Your task to perform on an android device: Open Chrome and go to settings Image 0: 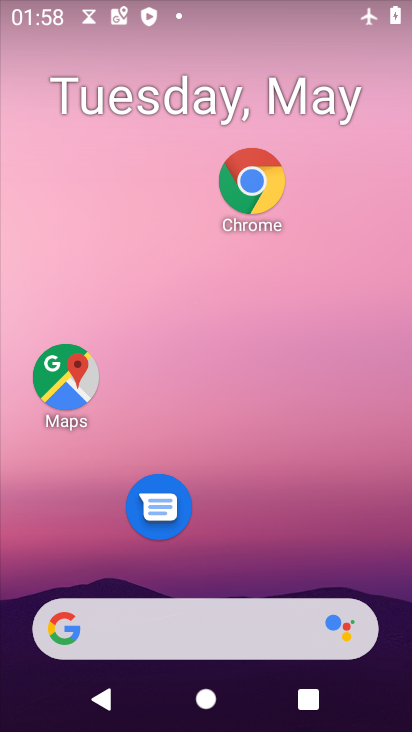
Step 0: drag from (231, 522) to (260, 227)
Your task to perform on an android device: Open Chrome and go to settings Image 1: 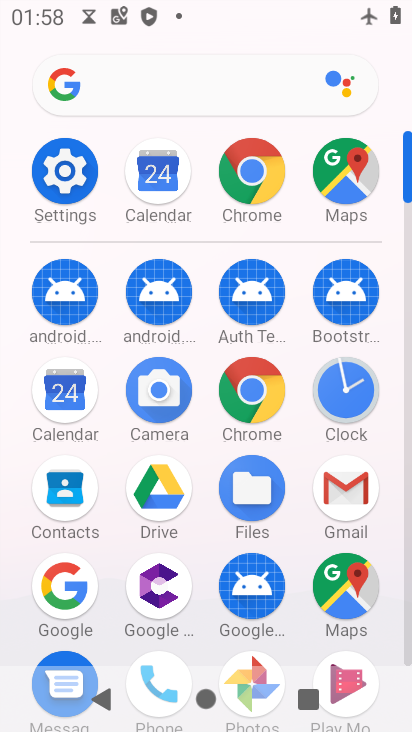
Step 1: click (260, 390)
Your task to perform on an android device: Open Chrome and go to settings Image 2: 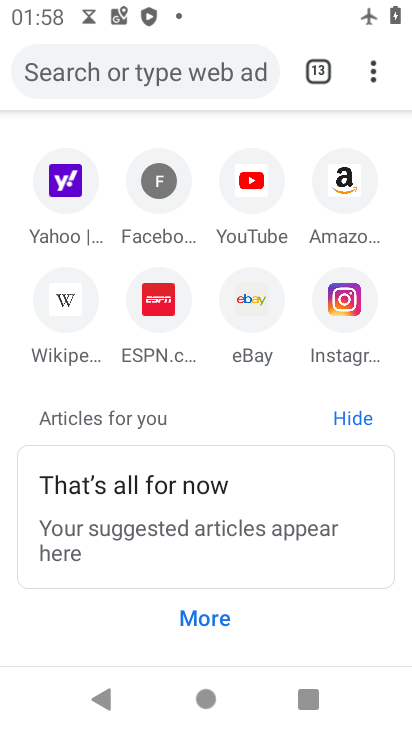
Step 2: click (362, 75)
Your task to perform on an android device: Open Chrome and go to settings Image 3: 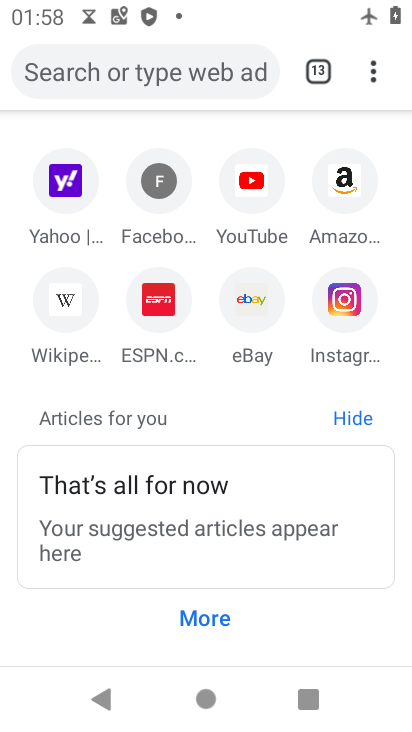
Step 3: click (368, 73)
Your task to perform on an android device: Open Chrome and go to settings Image 4: 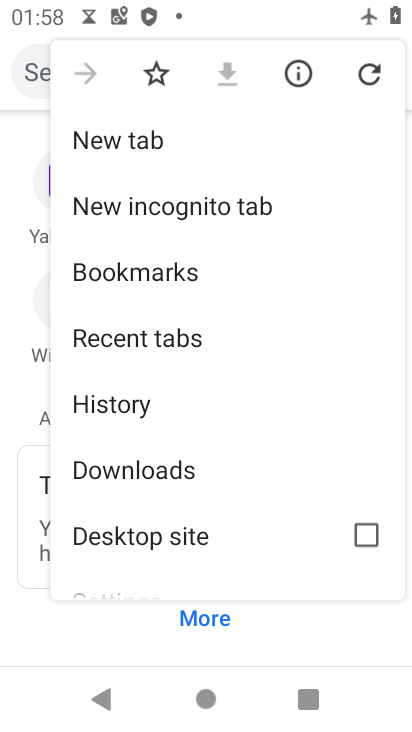
Step 4: drag from (208, 425) to (229, 198)
Your task to perform on an android device: Open Chrome and go to settings Image 5: 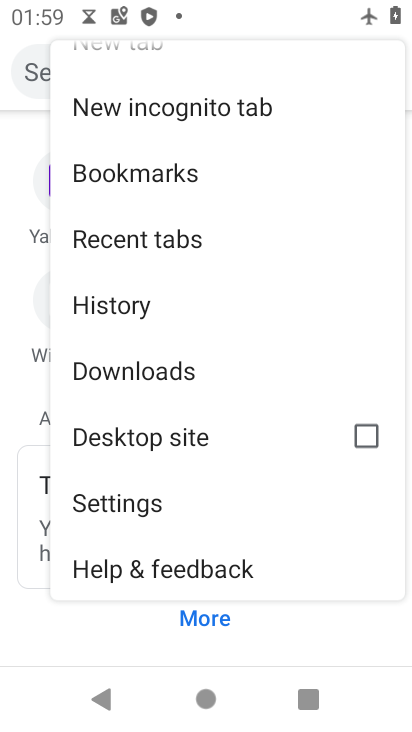
Step 5: click (119, 509)
Your task to perform on an android device: Open Chrome and go to settings Image 6: 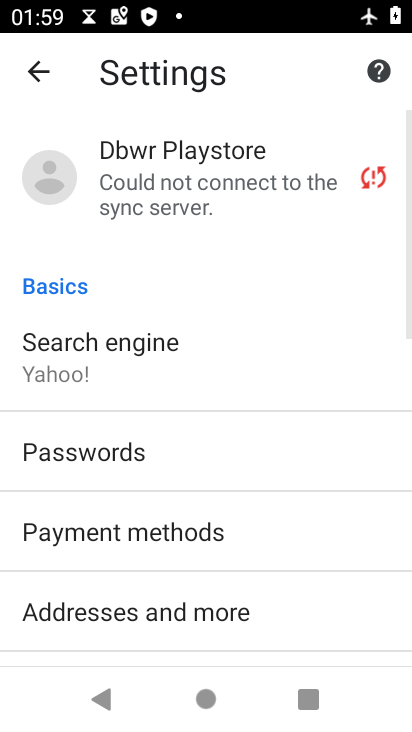
Step 6: task complete